Your task to perform on an android device: Go to Amazon Image 0: 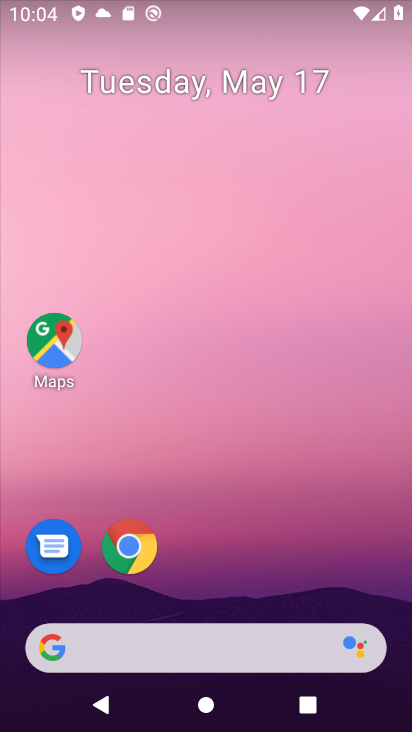
Step 0: drag from (270, 585) to (295, 125)
Your task to perform on an android device: Go to Amazon Image 1: 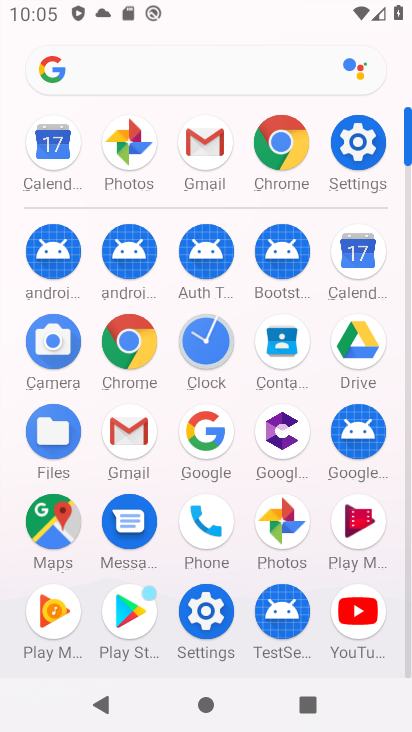
Step 1: click (113, 344)
Your task to perform on an android device: Go to Amazon Image 2: 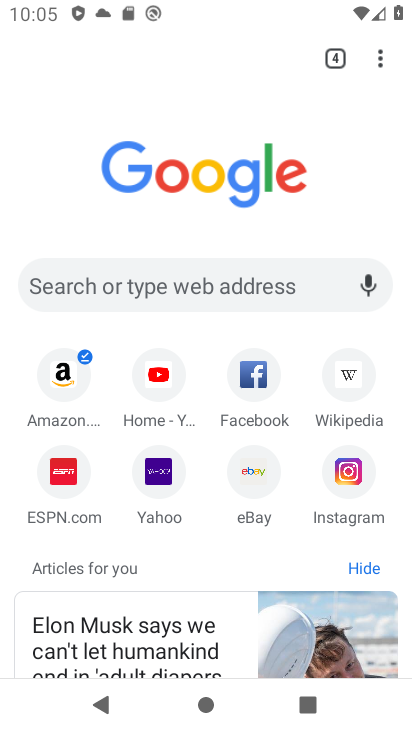
Step 2: click (69, 369)
Your task to perform on an android device: Go to Amazon Image 3: 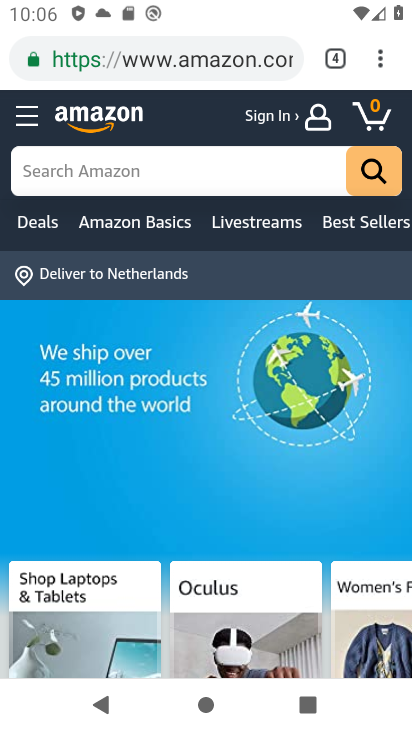
Step 3: task complete